Your task to perform on an android device: all mails in gmail Image 0: 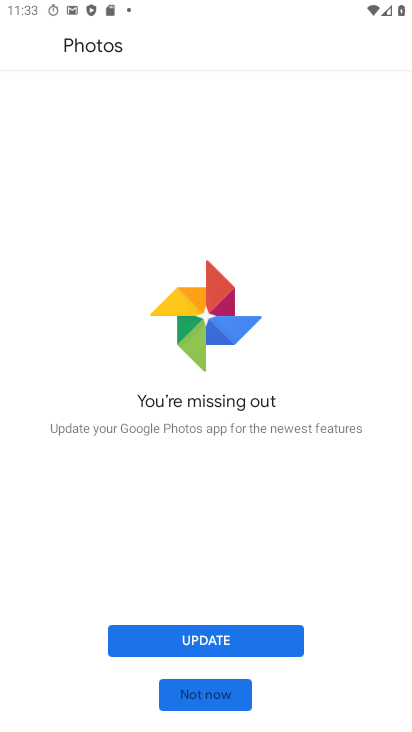
Step 0: press home button
Your task to perform on an android device: all mails in gmail Image 1: 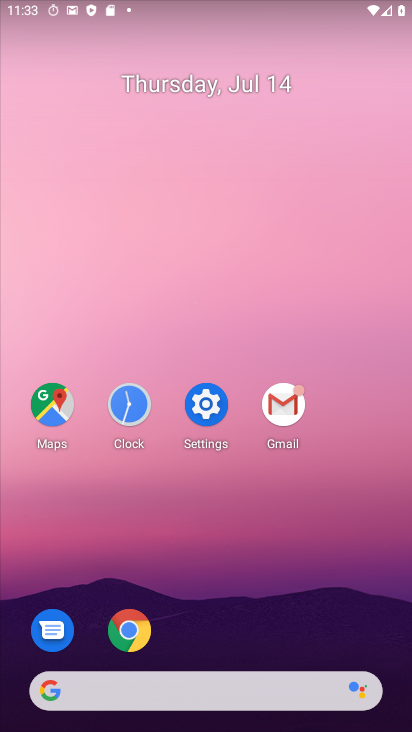
Step 1: click (278, 396)
Your task to perform on an android device: all mails in gmail Image 2: 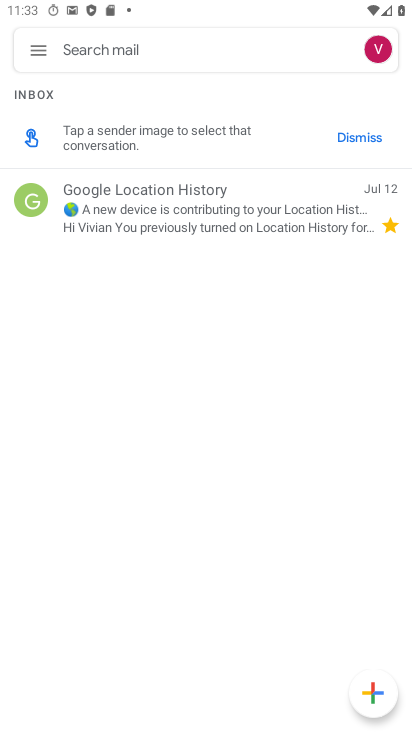
Step 2: click (43, 56)
Your task to perform on an android device: all mails in gmail Image 3: 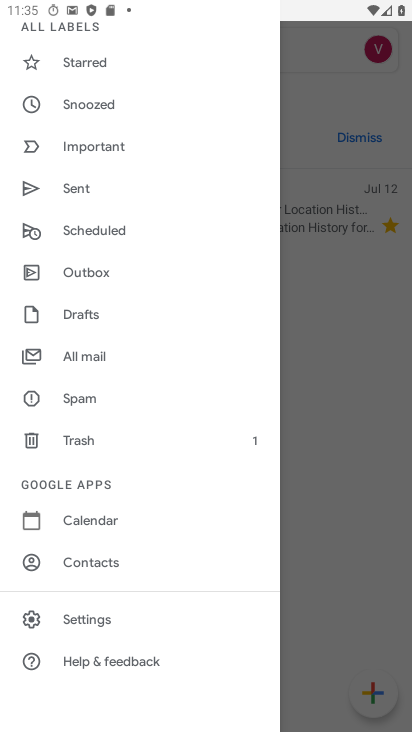
Step 3: click (62, 350)
Your task to perform on an android device: all mails in gmail Image 4: 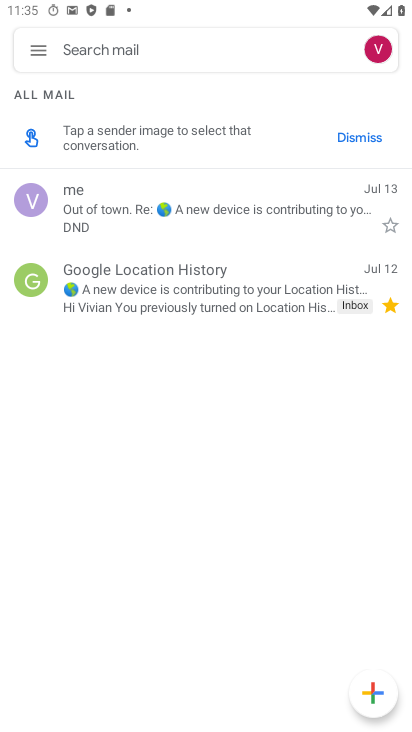
Step 4: task complete